Your task to perform on an android device: find which apps use the phone's location Image 0: 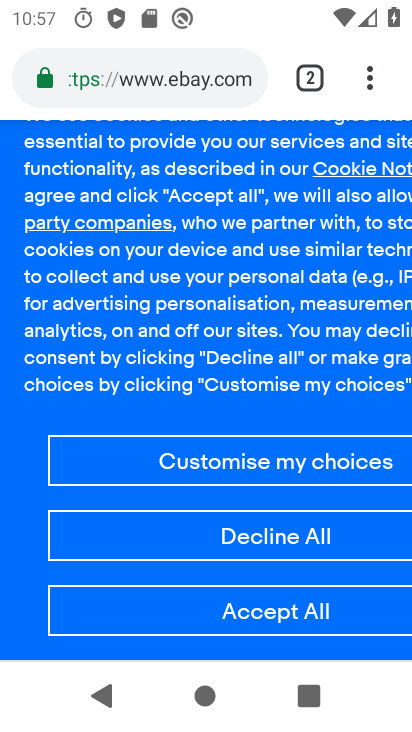
Step 0: press home button
Your task to perform on an android device: find which apps use the phone's location Image 1: 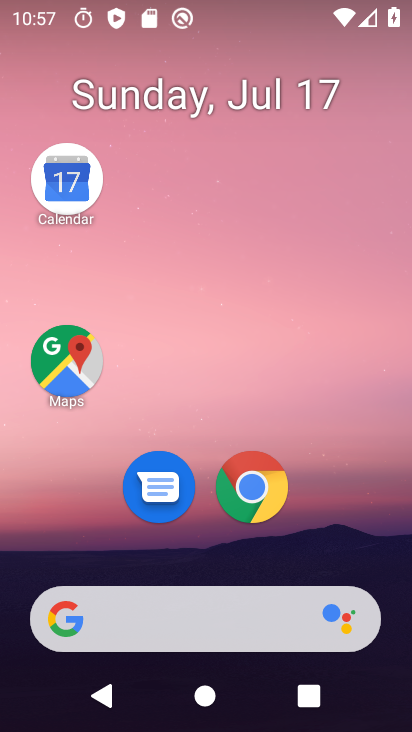
Step 1: drag from (324, 487) to (296, 199)
Your task to perform on an android device: find which apps use the phone's location Image 2: 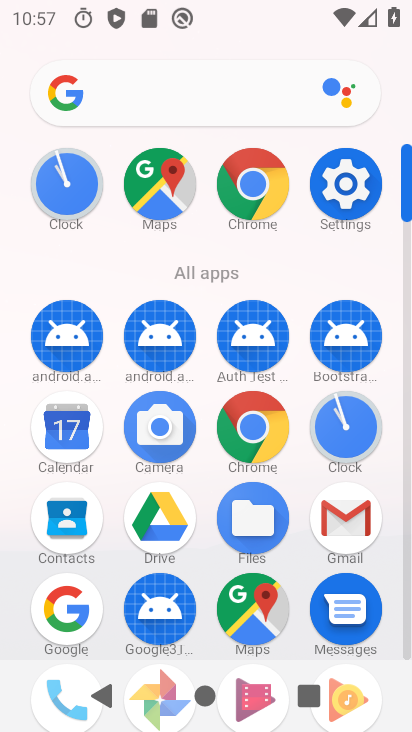
Step 2: click (327, 174)
Your task to perform on an android device: find which apps use the phone's location Image 3: 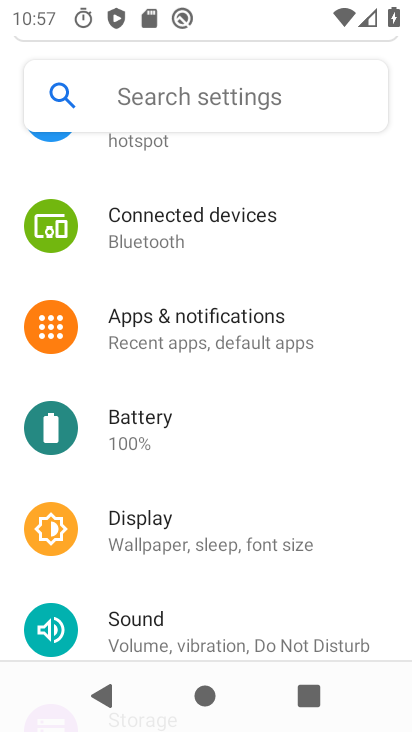
Step 3: drag from (275, 427) to (268, 221)
Your task to perform on an android device: find which apps use the phone's location Image 4: 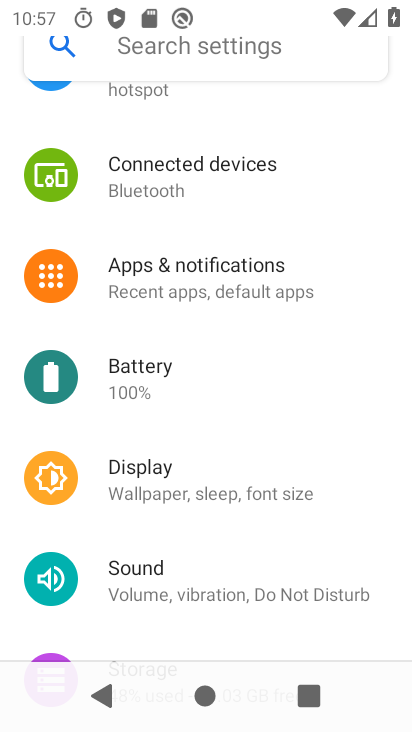
Step 4: drag from (245, 448) to (253, 163)
Your task to perform on an android device: find which apps use the phone's location Image 5: 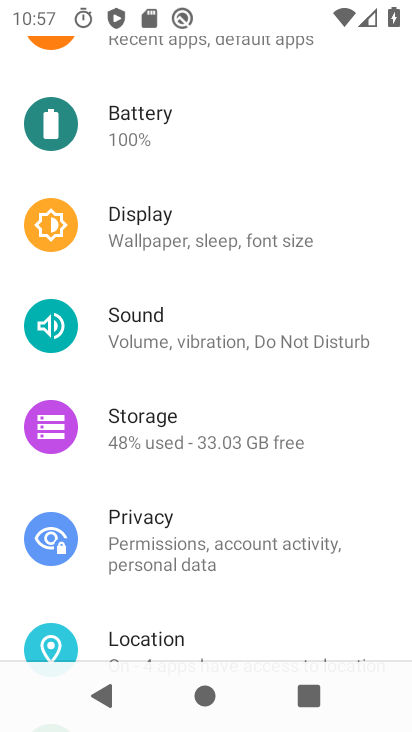
Step 5: click (186, 632)
Your task to perform on an android device: find which apps use the phone's location Image 6: 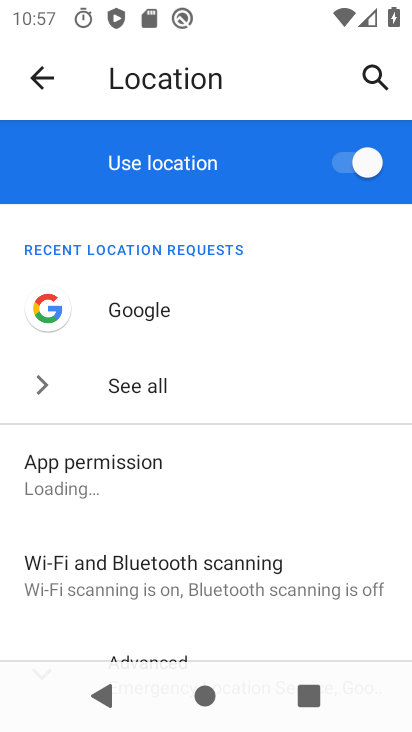
Step 6: task complete